Your task to perform on an android device: toggle improve location accuracy Image 0: 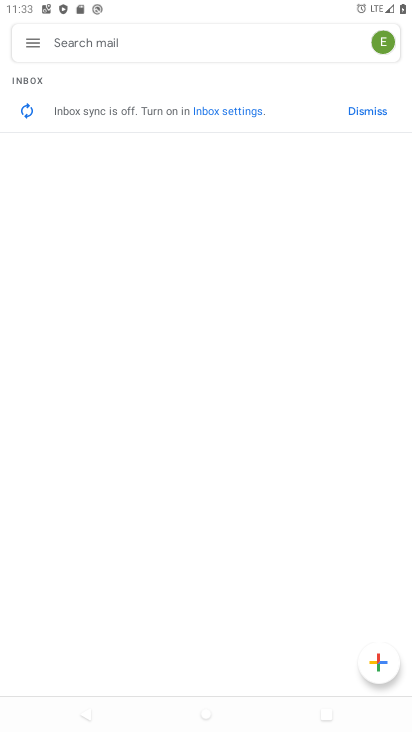
Step 0: press home button
Your task to perform on an android device: toggle improve location accuracy Image 1: 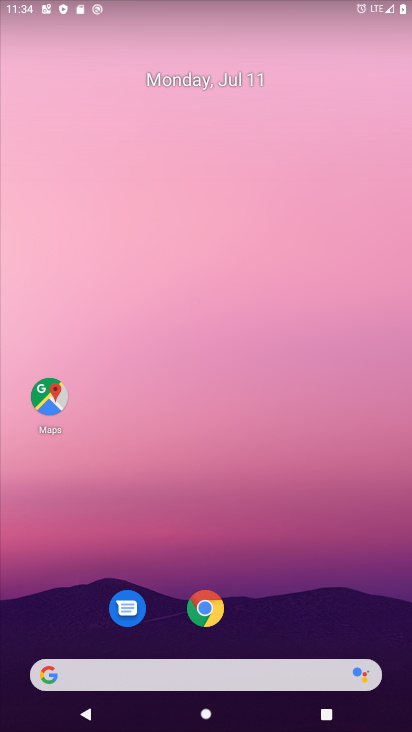
Step 1: drag from (16, 694) to (206, 36)
Your task to perform on an android device: toggle improve location accuracy Image 2: 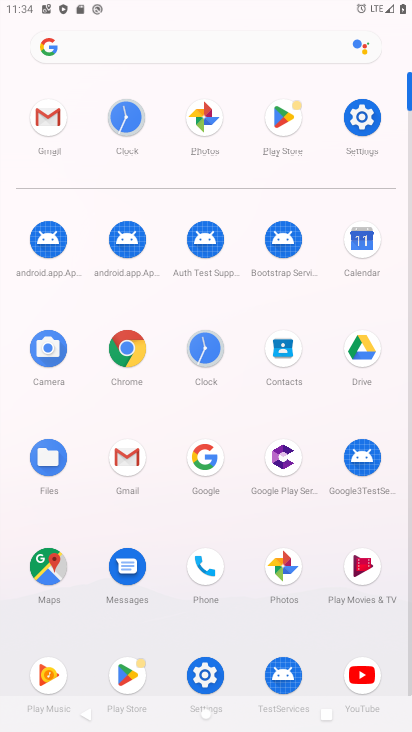
Step 2: click (203, 673)
Your task to perform on an android device: toggle improve location accuracy Image 3: 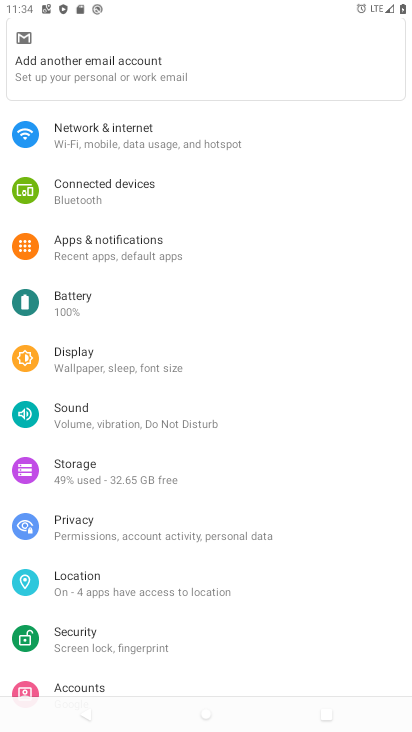
Step 3: click (100, 566)
Your task to perform on an android device: toggle improve location accuracy Image 4: 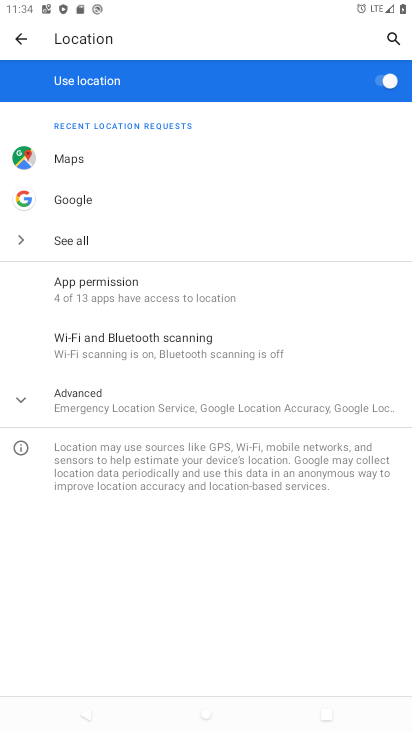
Step 4: click (91, 406)
Your task to perform on an android device: toggle improve location accuracy Image 5: 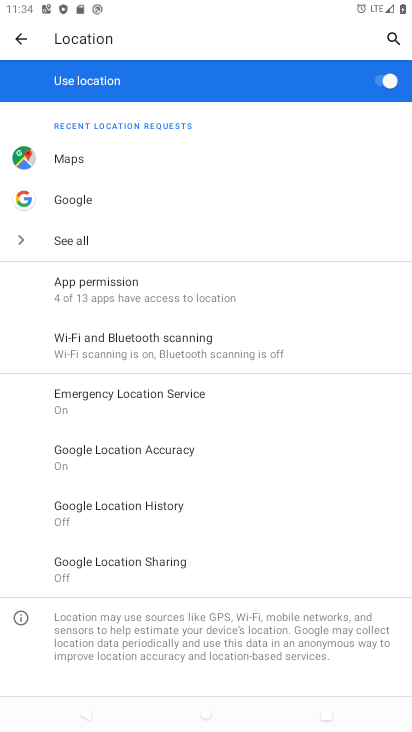
Step 5: click (95, 456)
Your task to perform on an android device: toggle improve location accuracy Image 6: 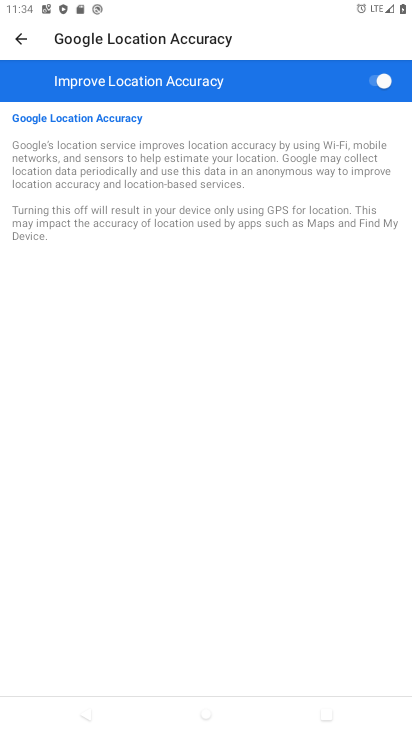
Step 6: task complete